Your task to perform on an android device: Clear the cart on amazon. Add acer nitro to the cart on amazon Image 0: 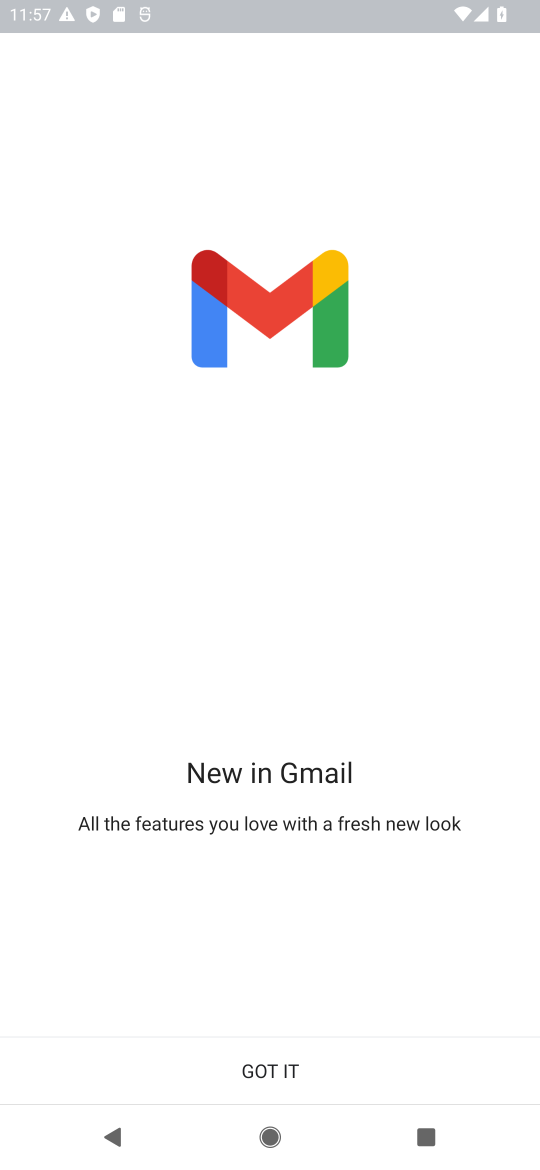
Step 0: press home button
Your task to perform on an android device: Clear the cart on amazon. Add acer nitro to the cart on amazon Image 1: 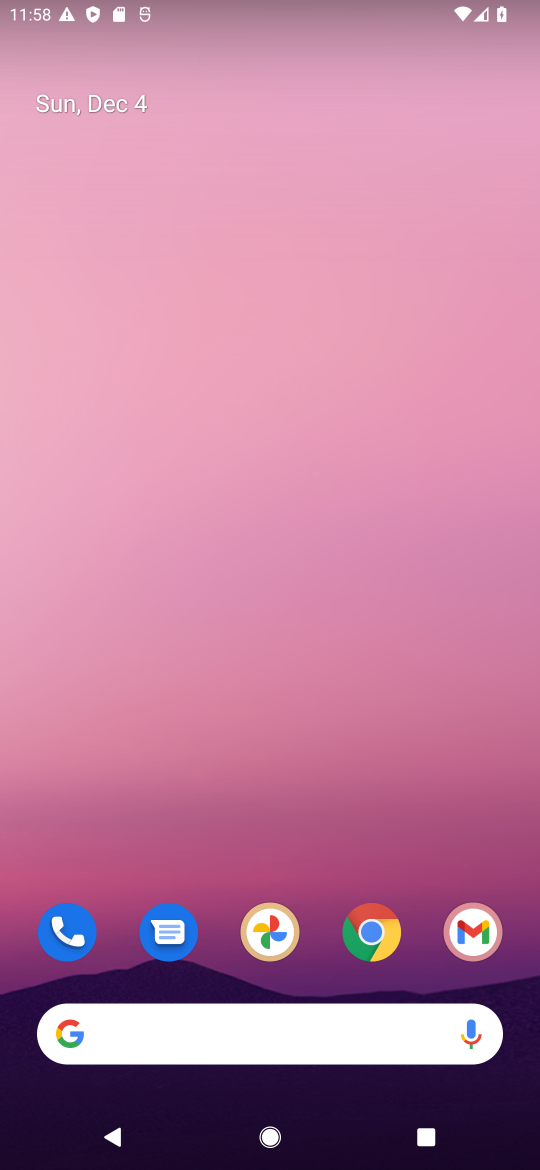
Step 1: click (379, 950)
Your task to perform on an android device: Clear the cart on amazon. Add acer nitro to the cart on amazon Image 2: 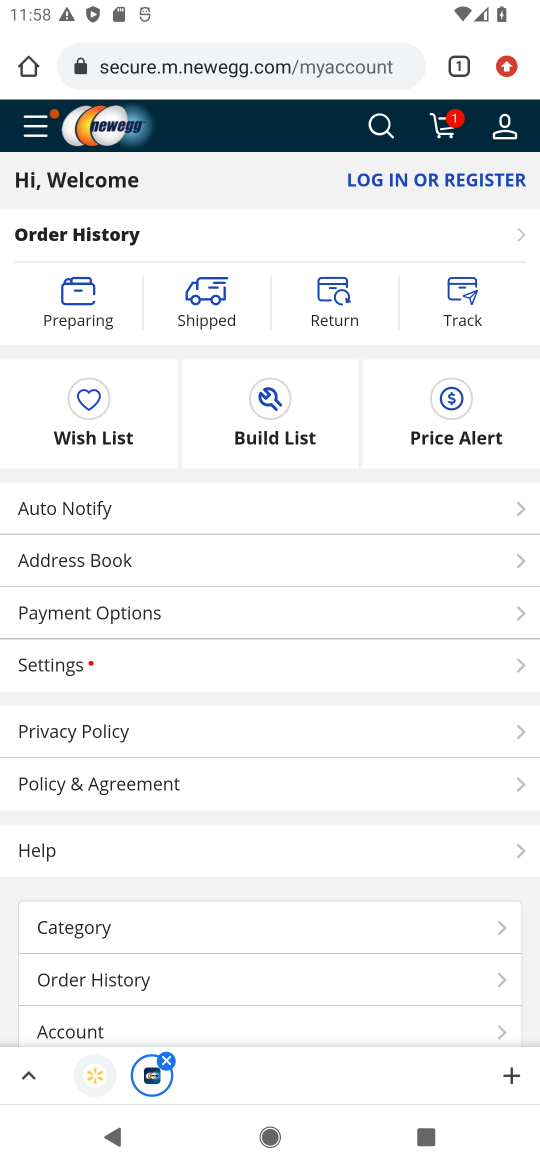
Step 2: click (244, 60)
Your task to perform on an android device: Clear the cart on amazon. Add acer nitro to the cart on amazon Image 3: 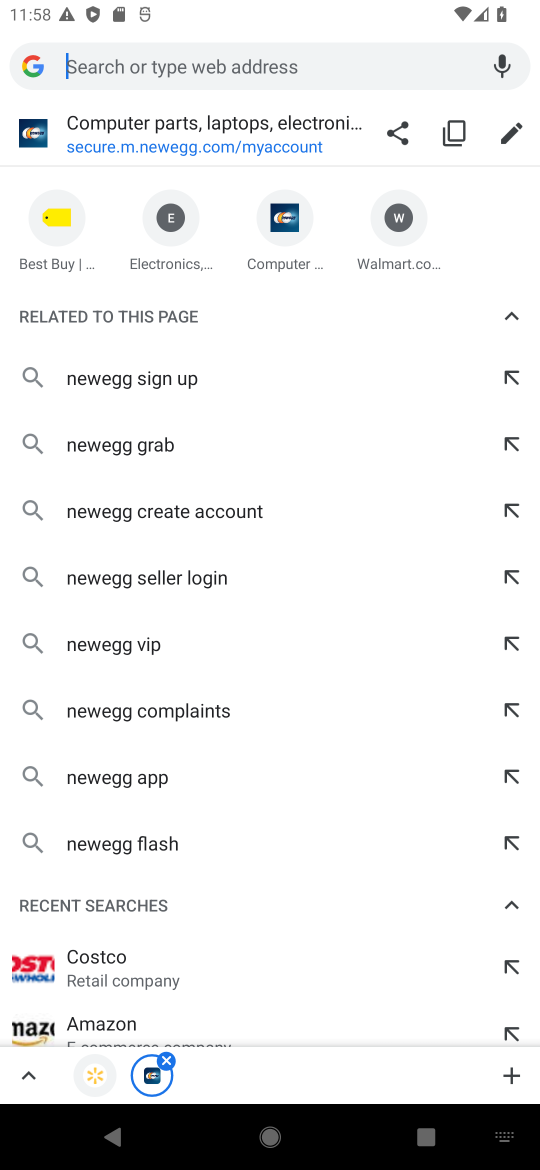
Step 3: click (128, 1012)
Your task to perform on an android device: Clear the cart on amazon. Add acer nitro to the cart on amazon Image 4: 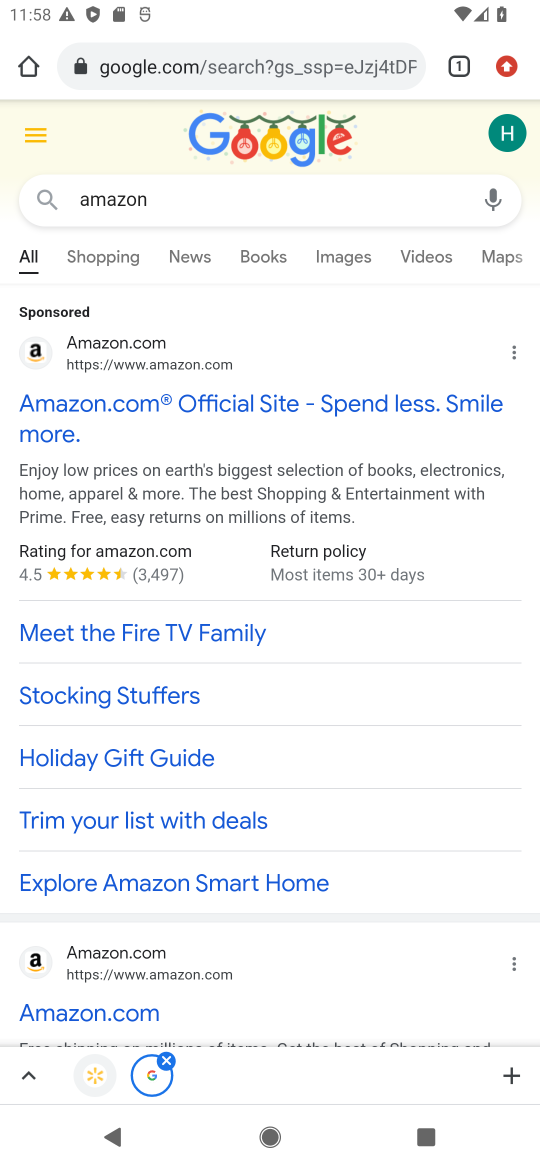
Step 4: click (104, 408)
Your task to perform on an android device: Clear the cart on amazon. Add acer nitro to the cart on amazon Image 5: 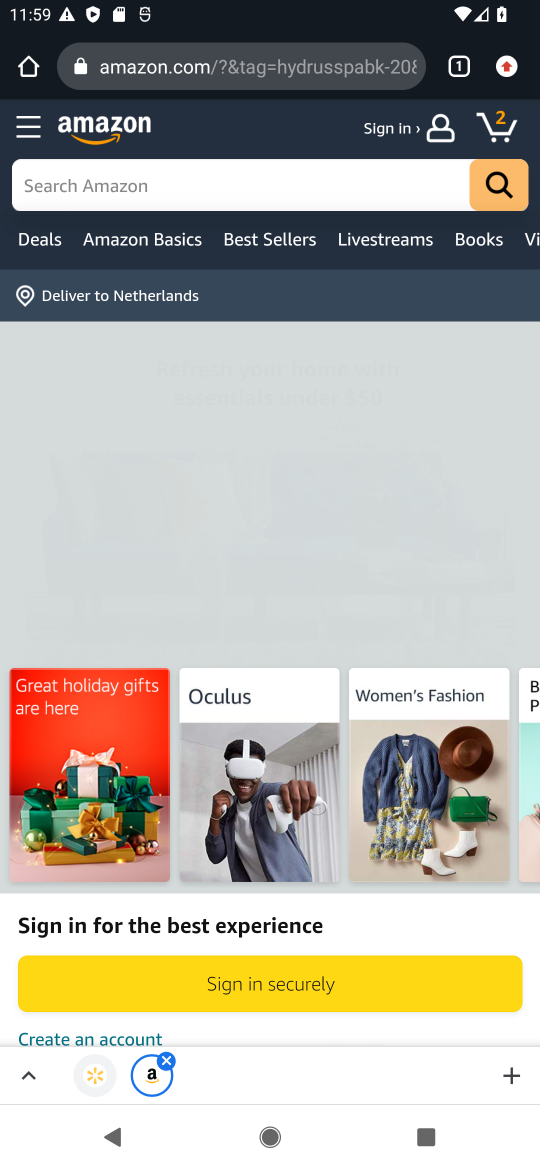
Step 5: click (285, 189)
Your task to perform on an android device: Clear the cart on amazon. Add acer nitro to the cart on amazon Image 6: 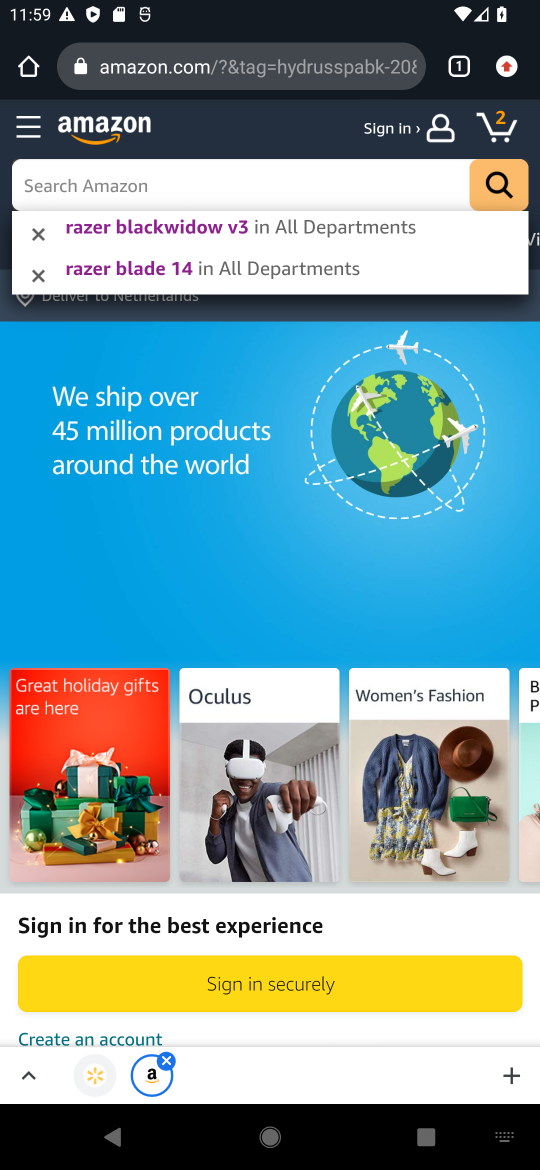
Step 6: type "acer nitro"
Your task to perform on an android device: Clear the cart on amazon. Add acer nitro to the cart on amazon Image 7: 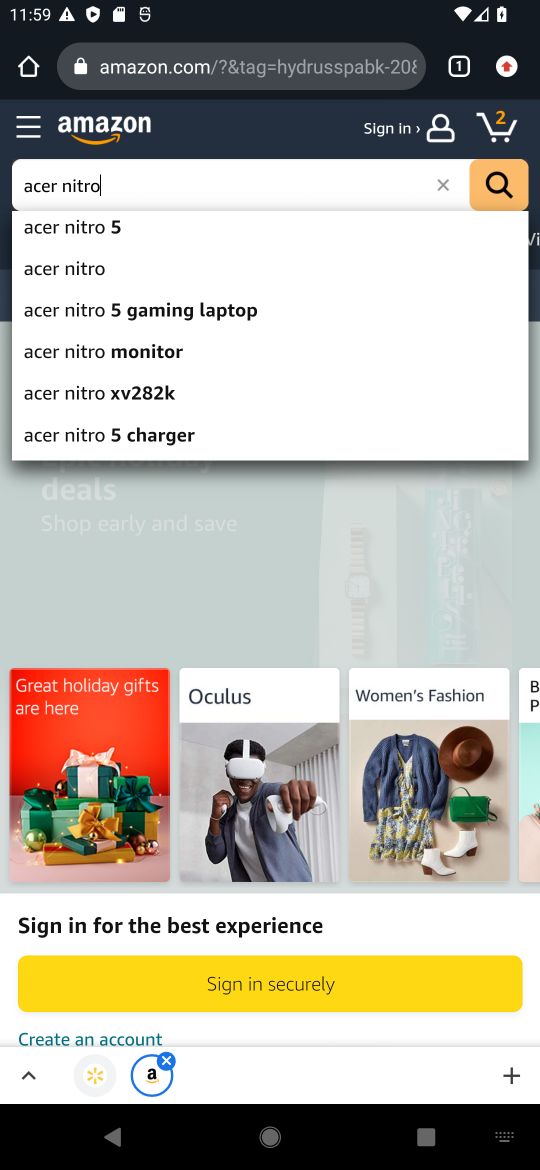
Step 7: click (123, 239)
Your task to perform on an android device: Clear the cart on amazon. Add acer nitro to the cart on amazon Image 8: 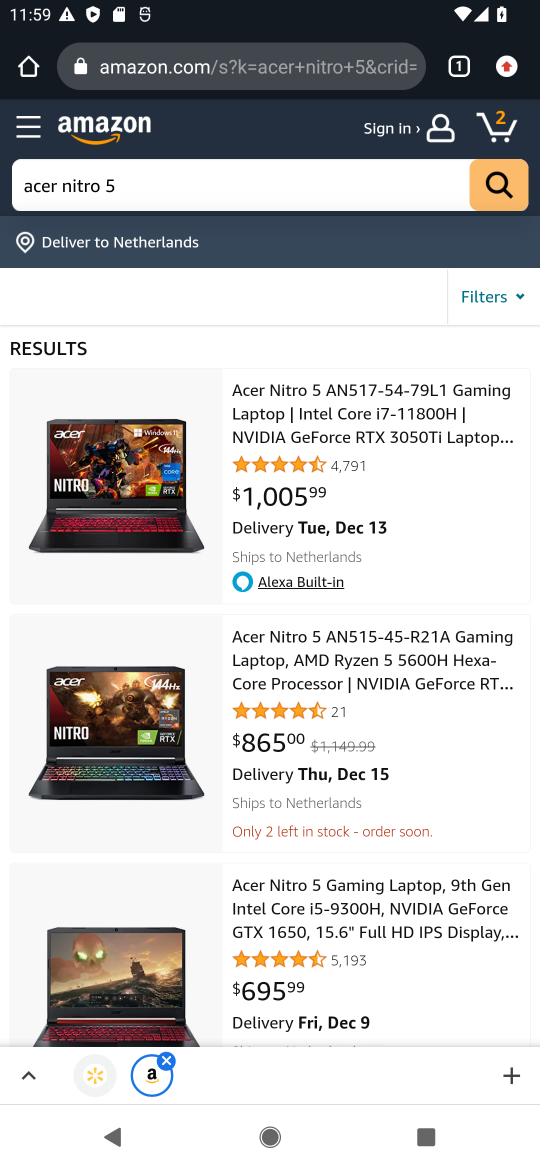
Step 8: click (162, 447)
Your task to perform on an android device: Clear the cart on amazon. Add acer nitro to the cart on amazon Image 9: 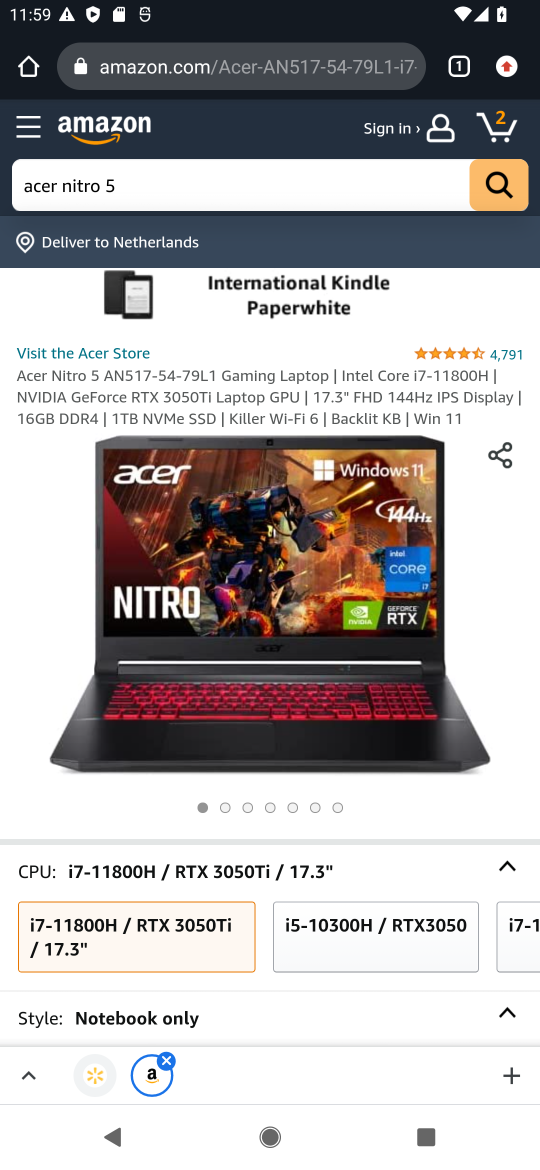
Step 9: drag from (334, 873) to (361, 383)
Your task to perform on an android device: Clear the cart on amazon. Add acer nitro to the cart on amazon Image 10: 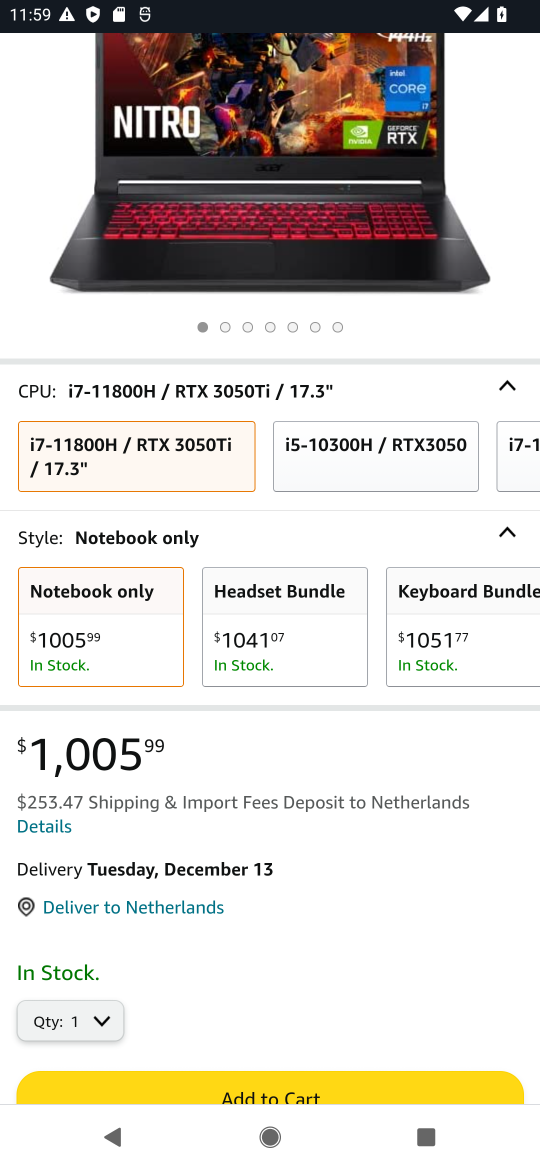
Step 10: click (287, 1085)
Your task to perform on an android device: Clear the cart on amazon. Add acer nitro to the cart on amazon Image 11: 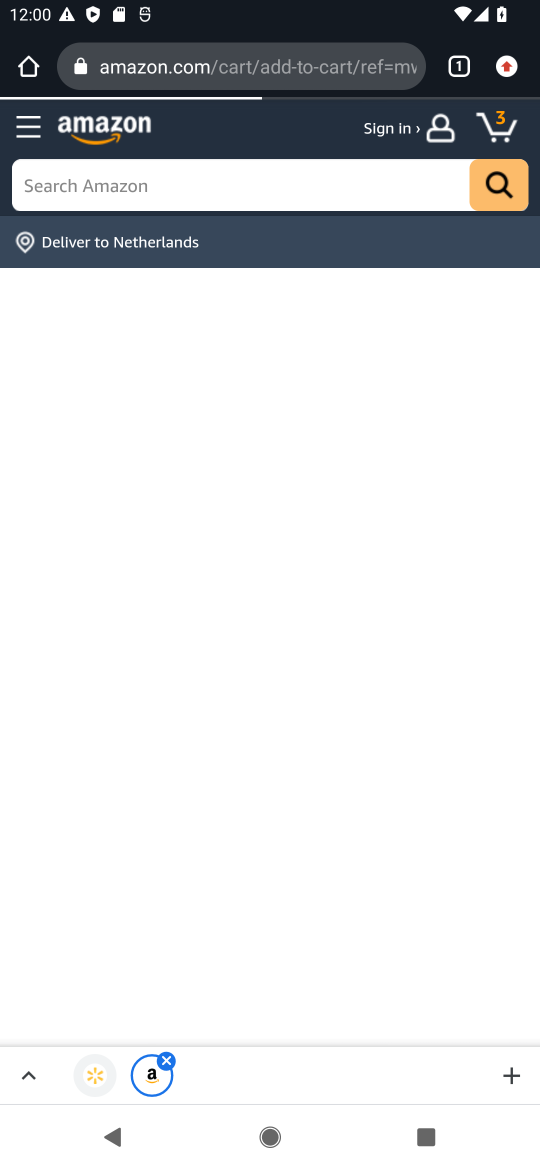
Step 11: task complete